Your task to perform on an android device: allow cookies in the chrome app Image 0: 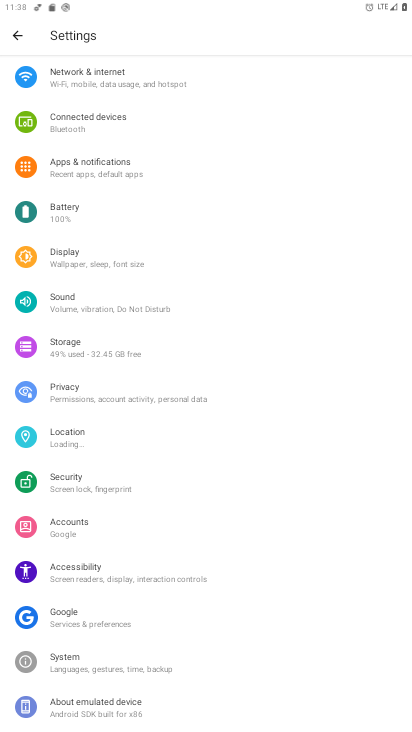
Step 0: press home button
Your task to perform on an android device: allow cookies in the chrome app Image 1: 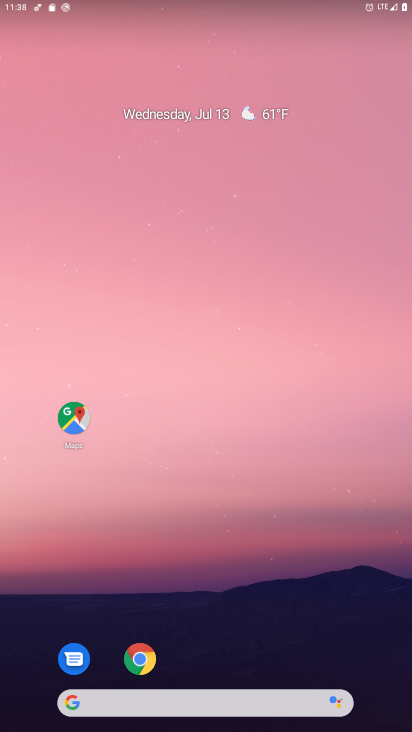
Step 1: click (139, 655)
Your task to perform on an android device: allow cookies in the chrome app Image 2: 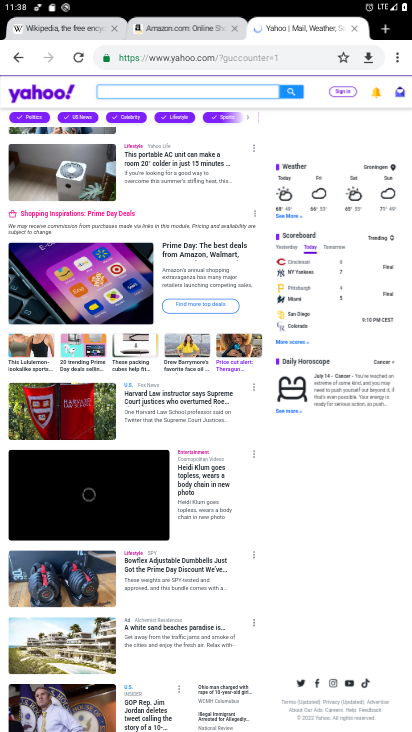
Step 2: click (232, 25)
Your task to perform on an android device: allow cookies in the chrome app Image 3: 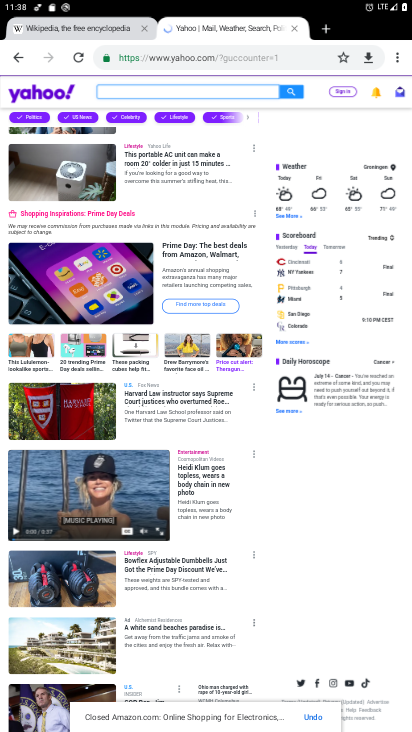
Step 3: click (143, 29)
Your task to perform on an android device: allow cookies in the chrome app Image 4: 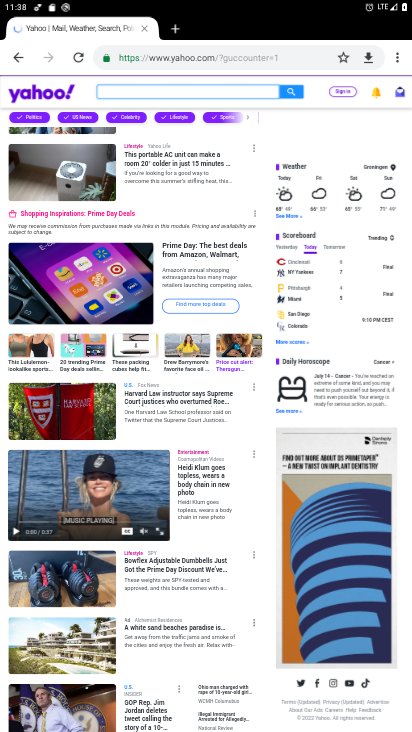
Step 4: click (179, 28)
Your task to perform on an android device: allow cookies in the chrome app Image 5: 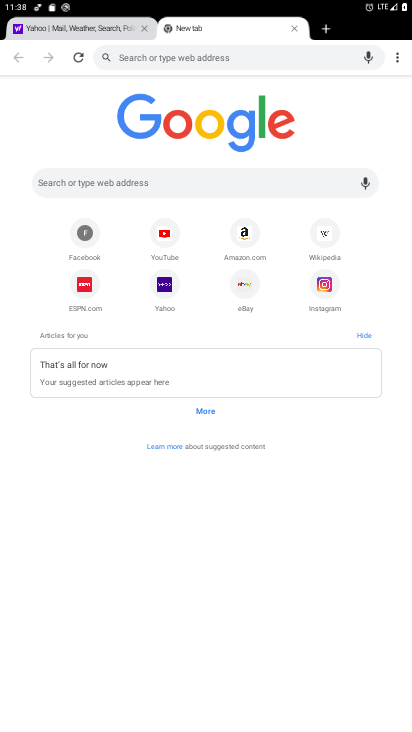
Step 5: click (395, 56)
Your task to perform on an android device: allow cookies in the chrome app Image 6: 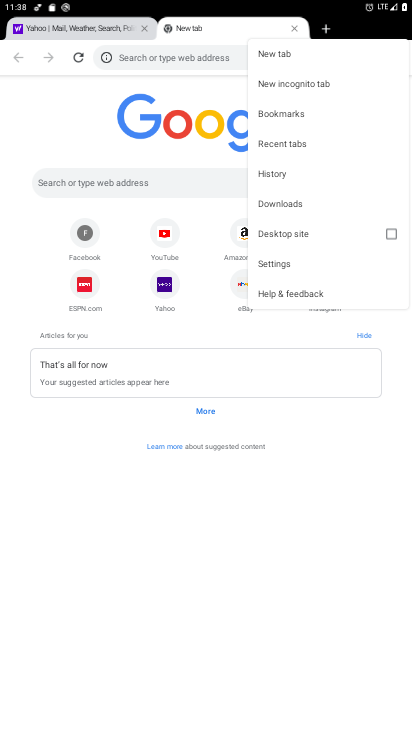
Step 6: click (294, 260)
Your task to perform on an android device: allow cookies in the chrome app Image 7: 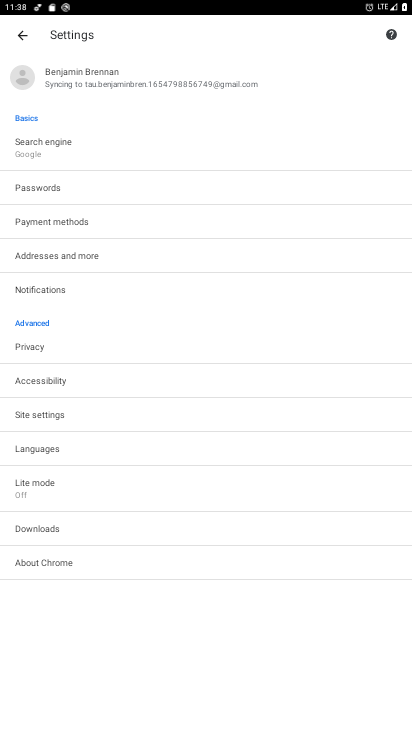
Step 7: click (71, 413)
Your task to perform on an android device: allow cookies in the chrome app Image 8: 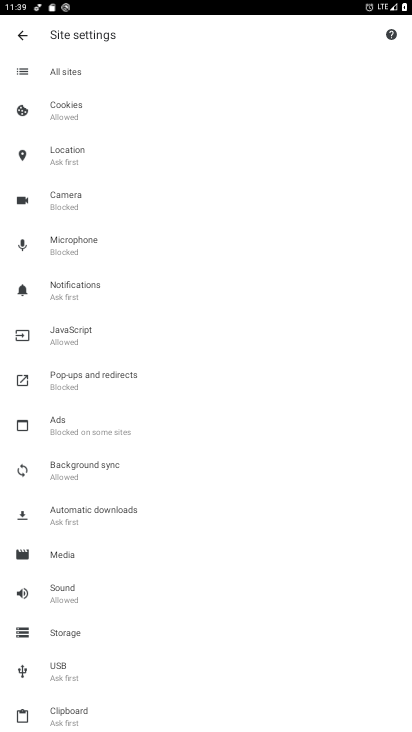
Step 8: click (91, 105)
Your task to perform on an android device: allow cookies in the chrome app Image 9: 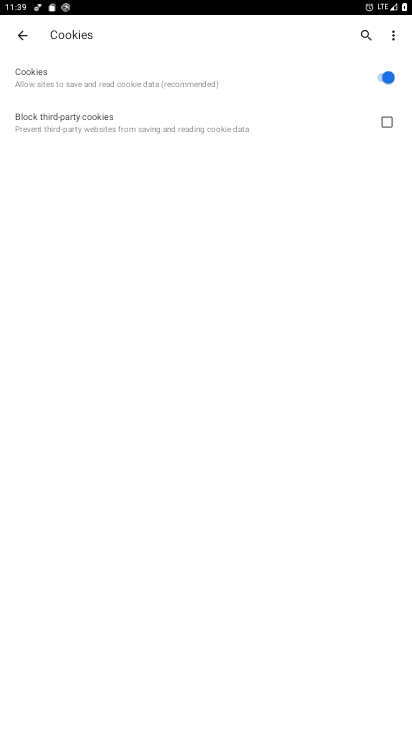
Step 9: task complete